Your task to perform on an android device: Toggle the flashlight Image 0: 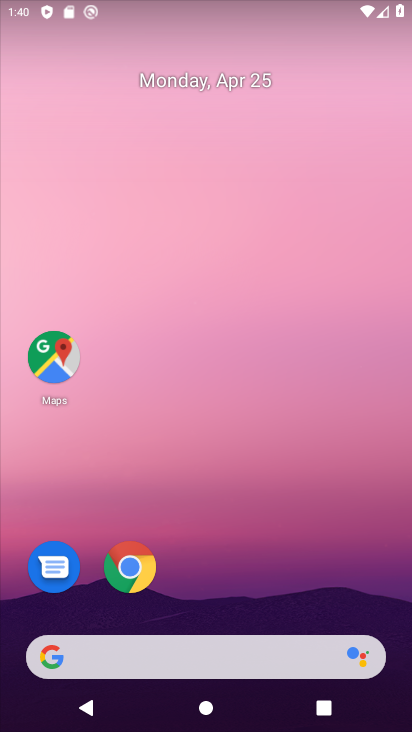
Step 0: drag from (355, 561) to (325, 37)
Your task to perform on an android device: Toggle the flashlight Image 1: 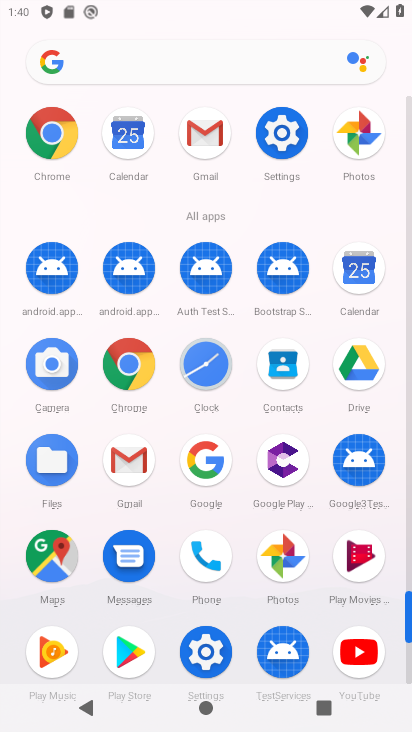
Step 1: click (409, 671)
Your task to perform on an android device: Toggle the flashlight Image 2: 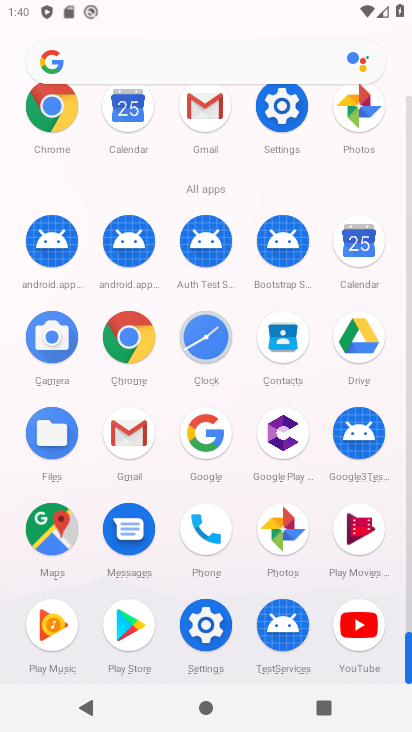
Step 2: press back button
Your task to perform on an android device: Toggle the flashlight Image 3: 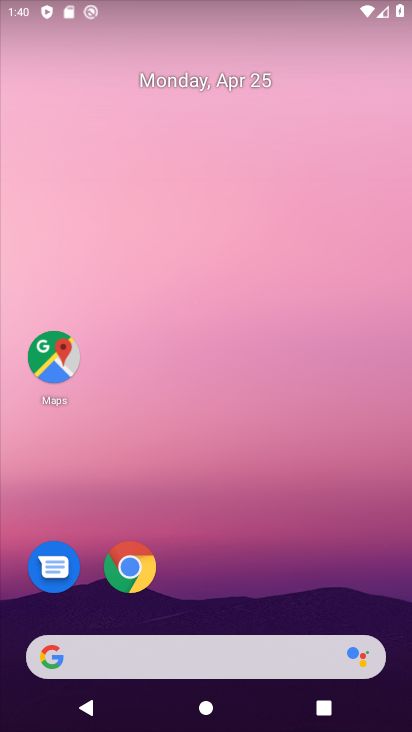
Step 3: drag from (221, 15) to (201, 638)
Your task to perform on an android device: Toggle the flashlight Image 4: 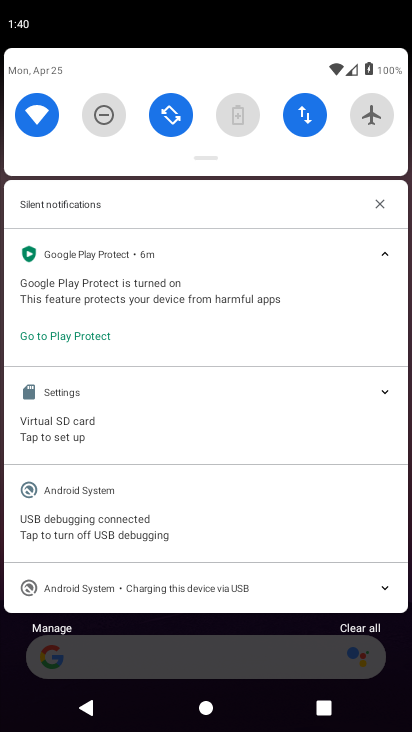
Step 4: drag from (216, 151) to (194, 526)
Your task to perform on an android device: Toggle the flashlight Image 5: 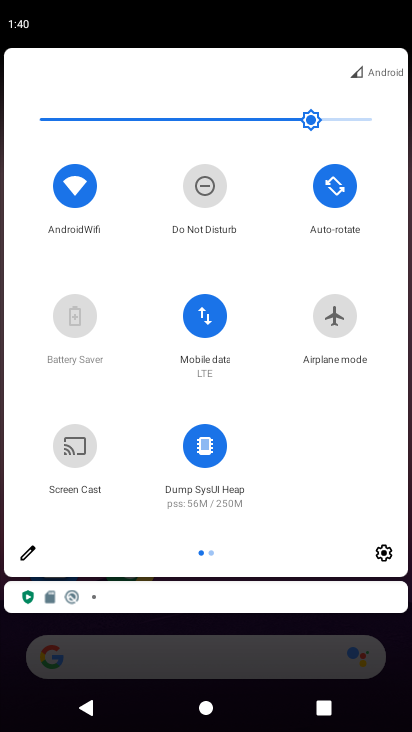
Step 5: drag from (340, 399) to (83, 373)
Your task to perform on an android device: Toggle the flashlight Image 6: 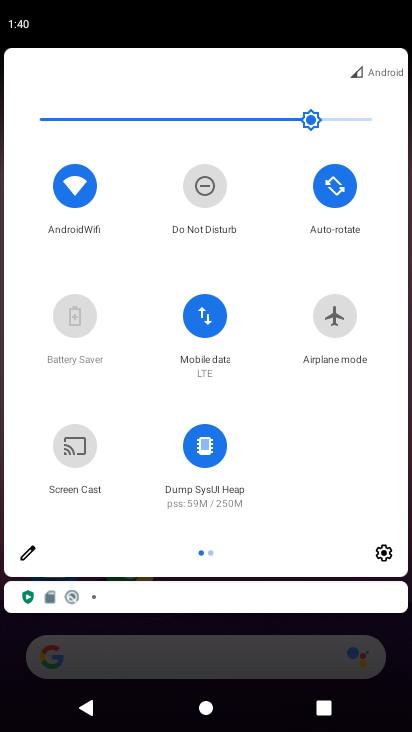
Step 6: click (23, 556)
Your task to perform on an android device: Toggle the flashlight Image 7: 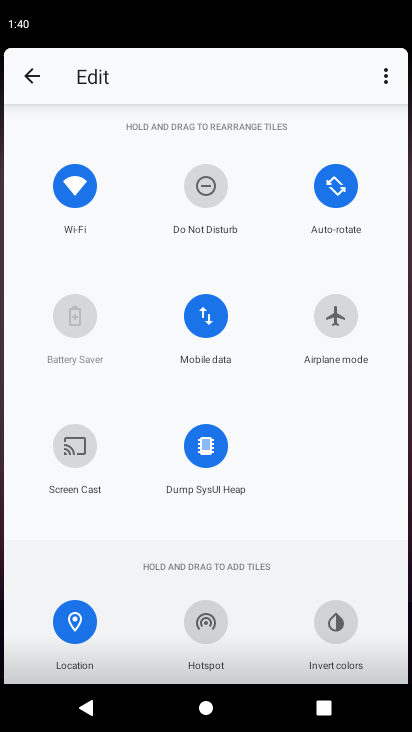
Step 7: task complete